Your task to perform on an android device: Do I have any events this weekend? Image 0: 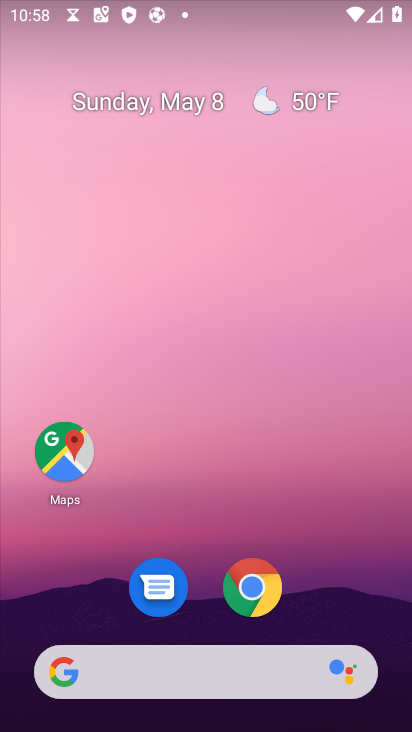
Step 0: drag from (348, 581) to (134, 162)
Your task to perform on an android device: Do I have any events this weekend? Image 1: 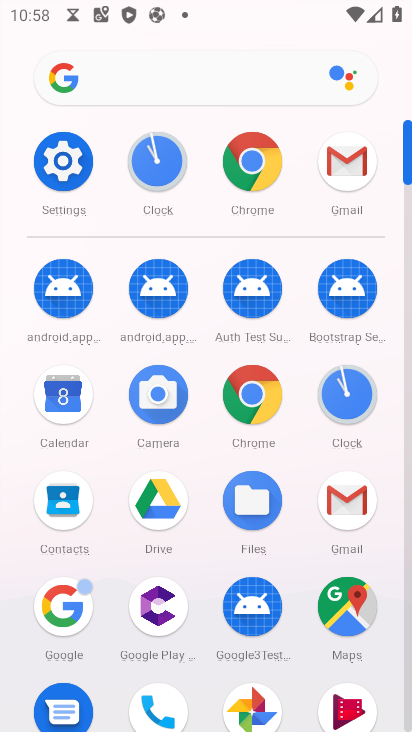
Step 1: click (64, 396)
Your task to perform on an android device: Do I have any events this weekend? Image 2: 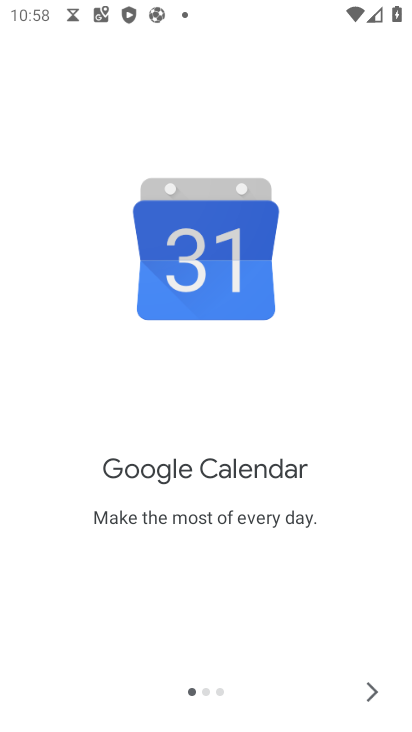
Step 2: click (372, 693)
Your task to perform on an android device: Do I have any events this weekend? Image 3: 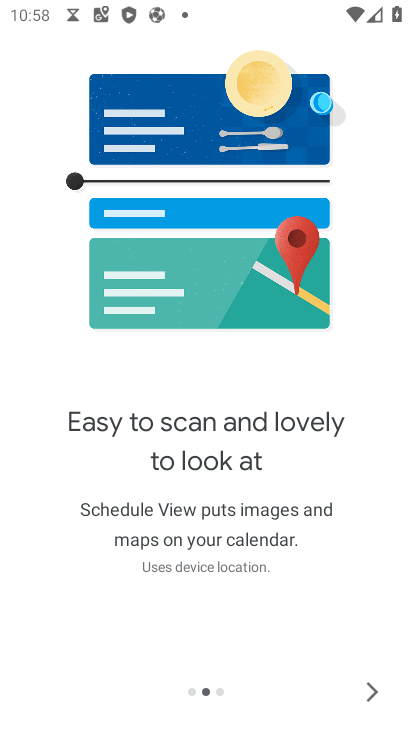
Step 3: click (372, 693)
Your task to perform on an android device: Do I have any events this weekend? Image 4: 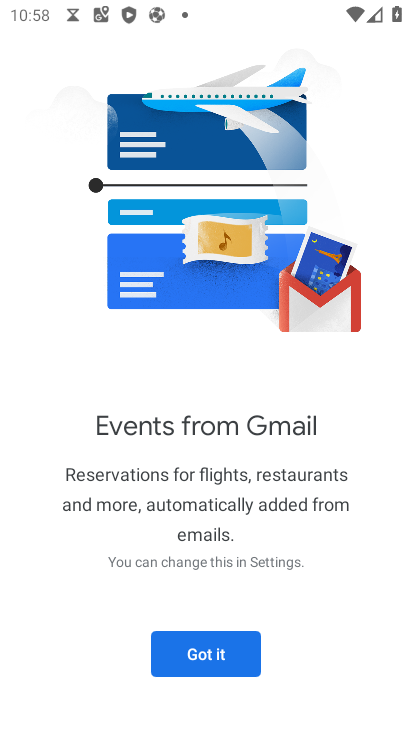
Step 4: click (197, 659)
Your task to perform on an android device: Do I have any events this weekend? Image 5: 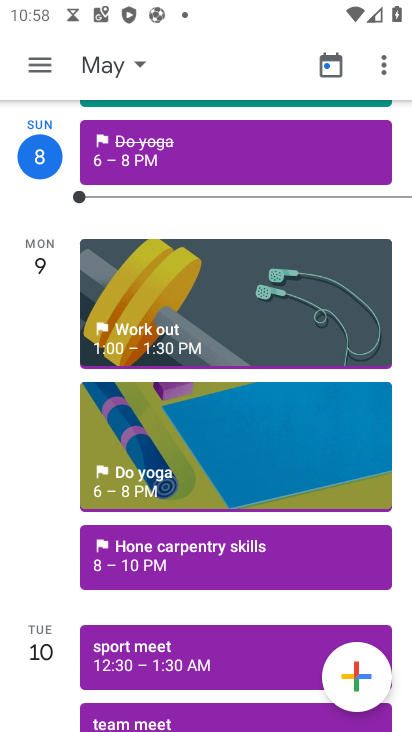
Step 5: click (42, 67)
Your task to perform on an android device: Do I have any events this weekend? Image 6: 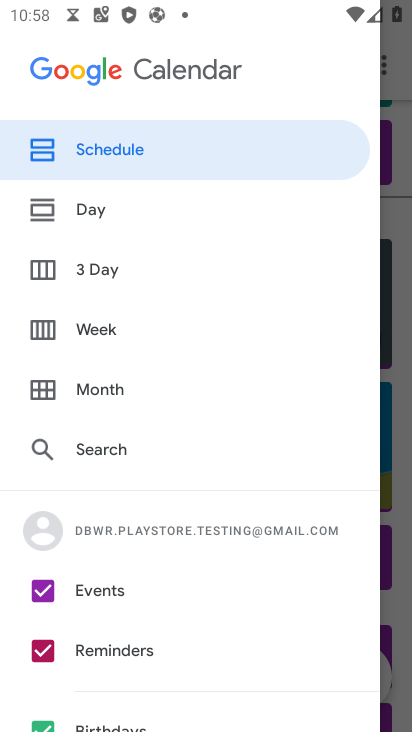
Step 6: click (86, 327)
Your task to perform on an android device: Do I have any events this weekend? Image 7: 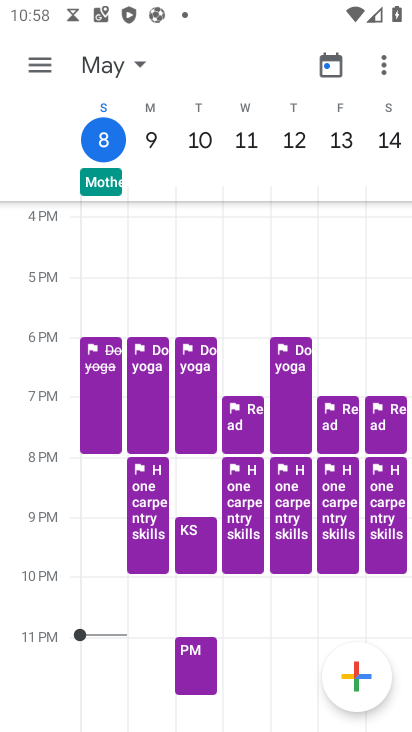
Step 7: drag from (127, 517) to (145, 250)
Your task to perform on an android device: Do I have any events this weekend? Image 8: 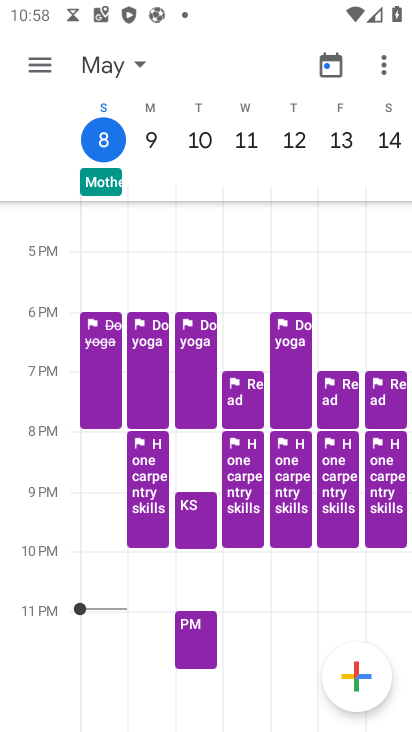
Step 8: drag from (138, 347) to (132, 682)
Your task to perform on an android device: Do I have any events this weekend? Image 9: 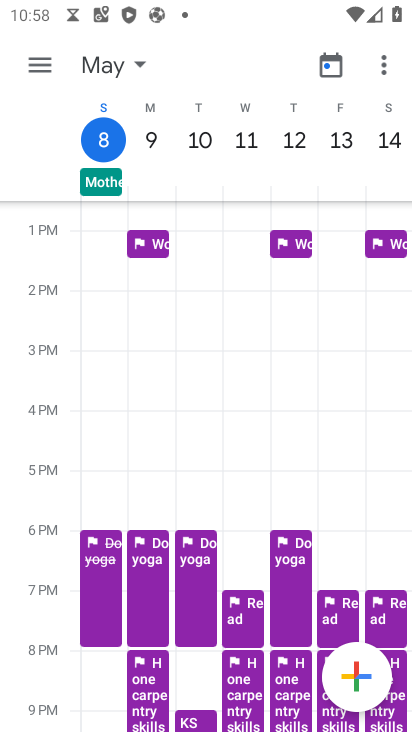
Step 9: click (389, 137)
Your task to perform on an android device: Do I have any events this weekend? Image 10: 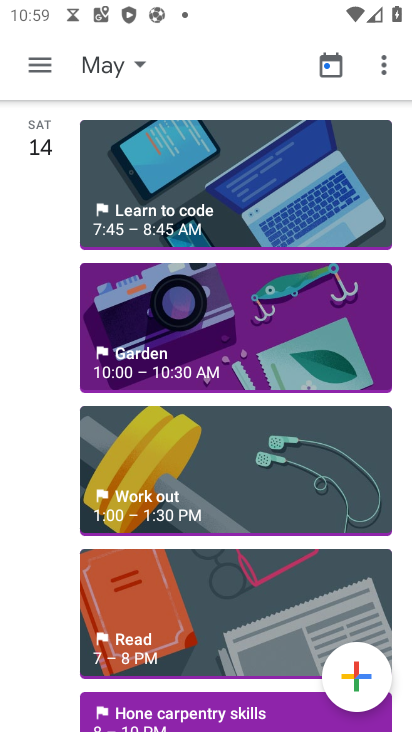
Step 10: task complete